Your task to perform on an android device: Show me the alarms in the clock app Image 0: 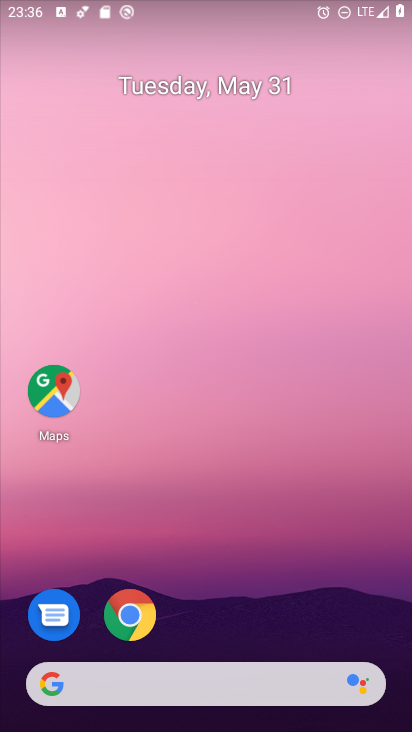
Step 0: drag from (366, 634) to (299, 62)
Your task to perform on an android device: Show me the alarms in the clock app Image 1: 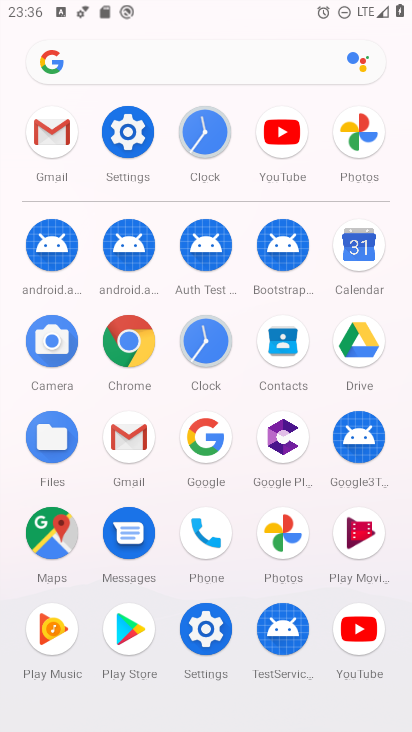
Step 1: click (209, 339)
Your task to perform on an android device: Show me the alarms in the clock app Image 2: 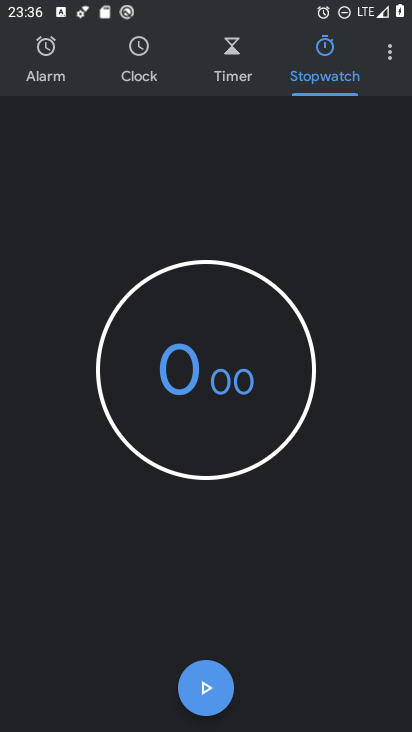
Step 2: click (43, 56)
Your task to perform on an android device: Show me the alarms in the clock app Image 3: 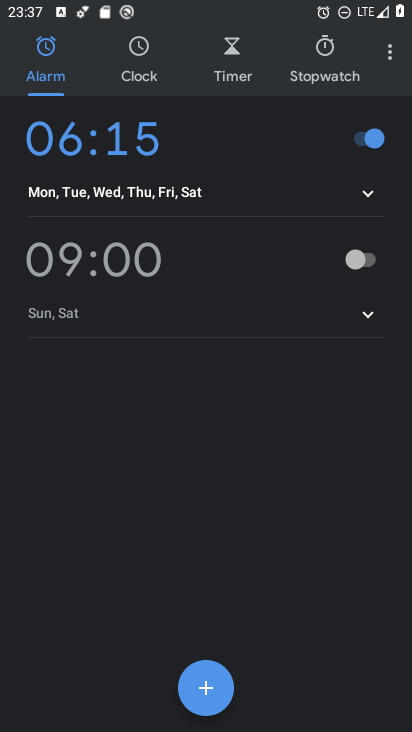
Step 3: task complete